Your task to perform on an android device: Go to notification settings Image 0: 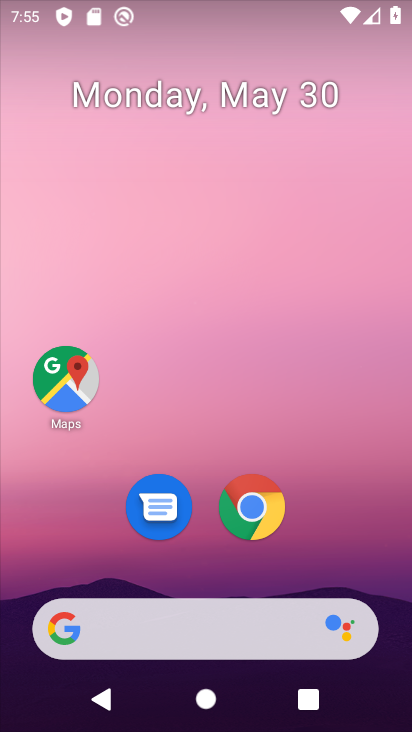
Step 0: drag from (352, 633) to (301, 77)
Your task to perform on an android device: Go to notification settings Image 1: 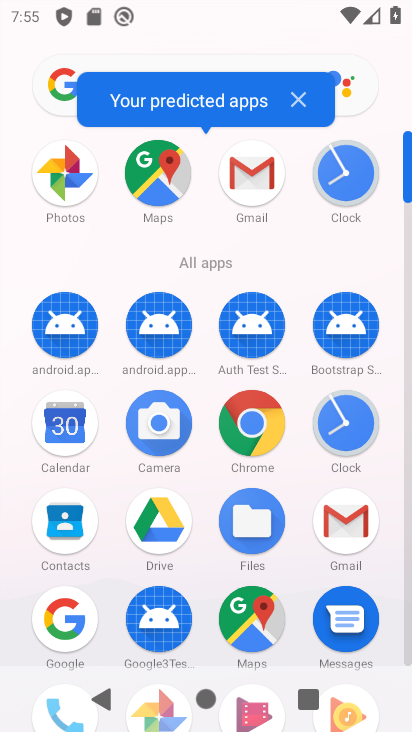
Step 1: drag from (275, 526) to (314, 50)
Your task to perform on an android device: Go to notification settings Image 2: 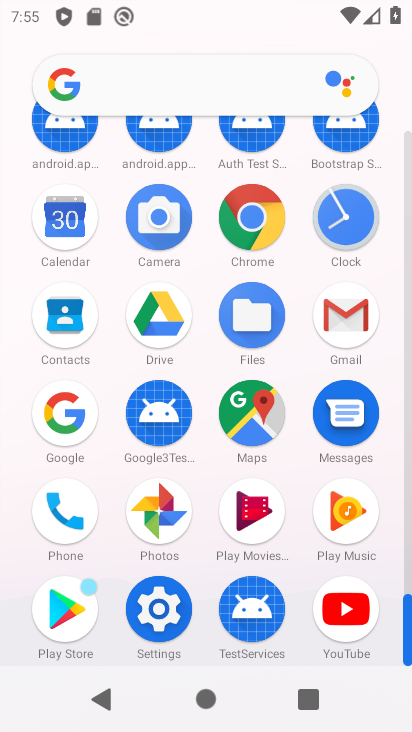
Step 2: click (173, 605)
Your task to perform on an android device: Go to notification settings Image 3: 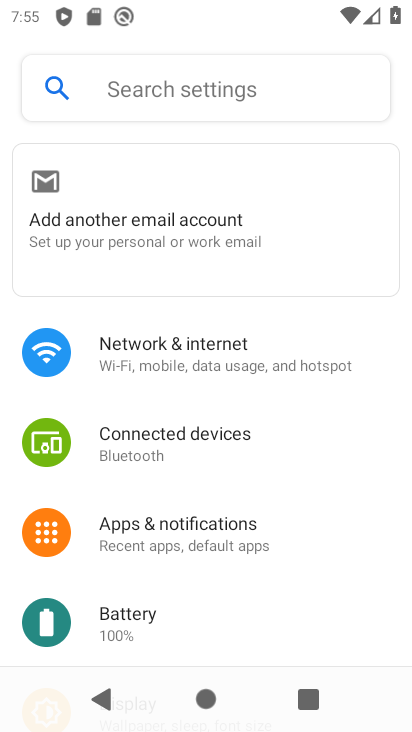
Step 3: click (212, 519)
Your task to perform on an android device: Go to notification settings Image 4: 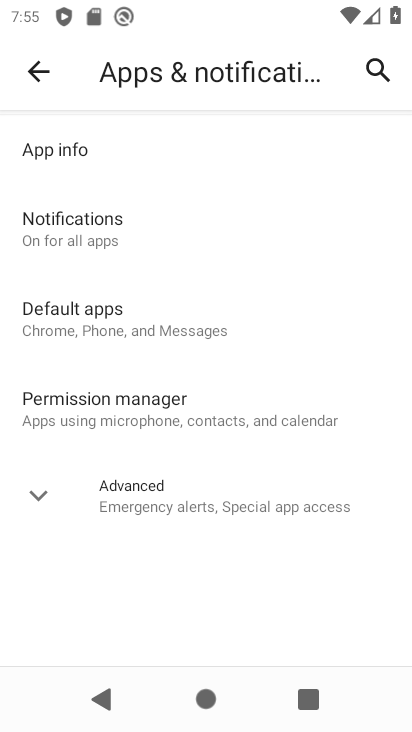
Step 4: click (147, 237)
Your task to perform on an android device: Go to notification settings Image 5: 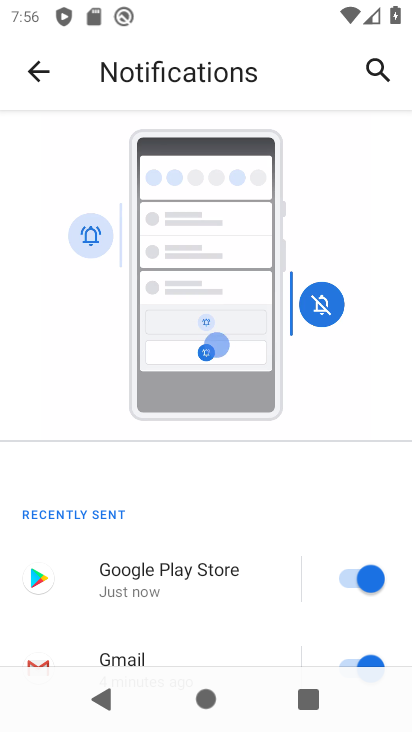
Step 5: task complete